Your task to perform on an android device: Go to notification settings Image 0: 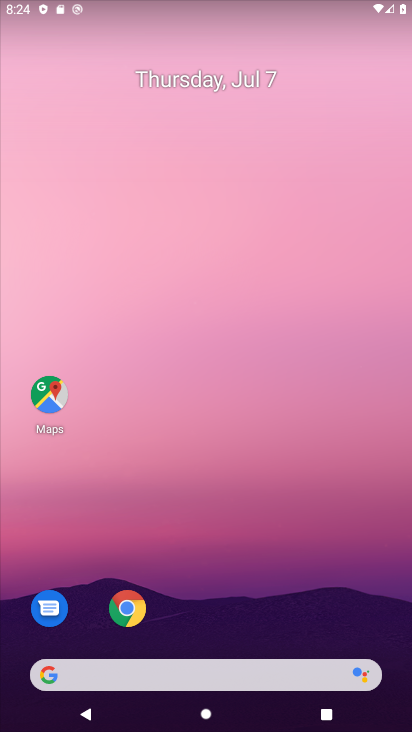
Step 0: drag from (206, 671) to (250, 182)
Your task to perform on an android device: Go to notification settings Image 1: 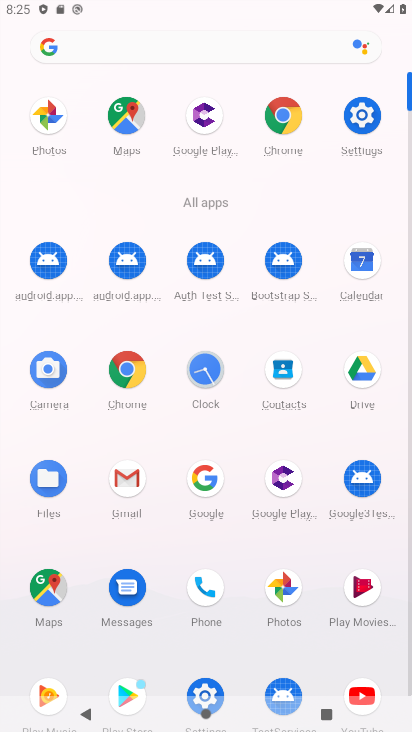
Step 1: click (350, 115)
Your task to perform on an android device: Go to notification settings Image 2: 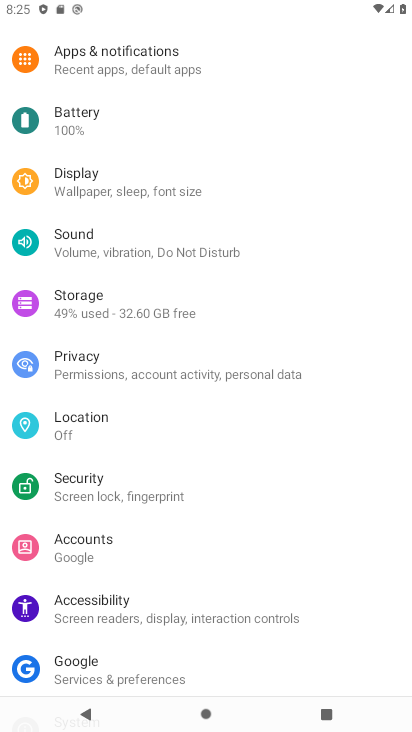
Step 2: click (194, 56)
Your task to perform on an android device: Go to notification settings Image 3: 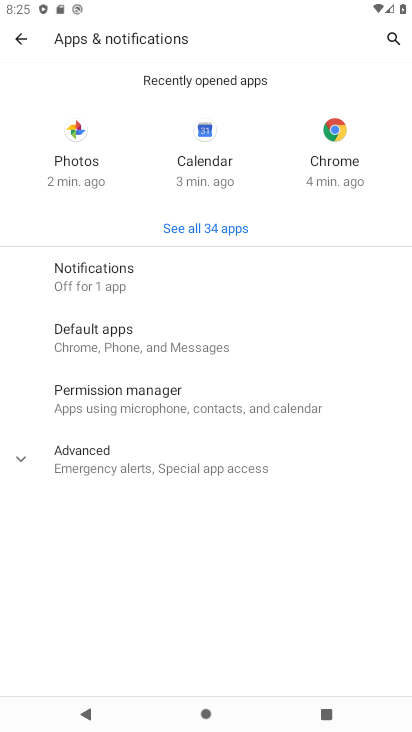
Step 3: task complete